Your task to perform on an android device: Open the phone app and click the voicemail tab. Image 0: 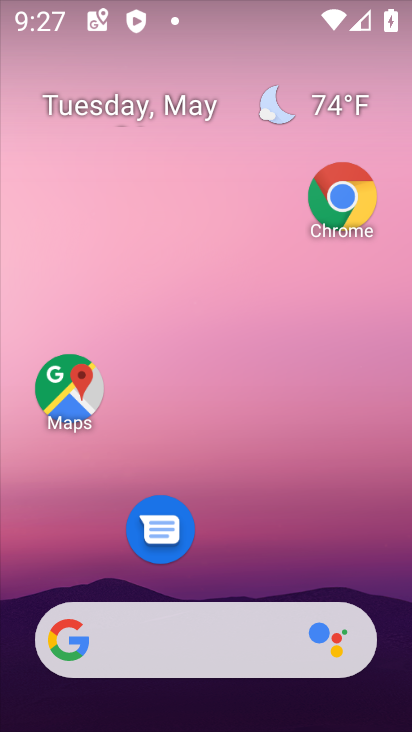
Step 0: drag from (297, 34) to (274, 6)
Your task to perform on an android device: Open the phone app and click the voicemail tab. Image 1: 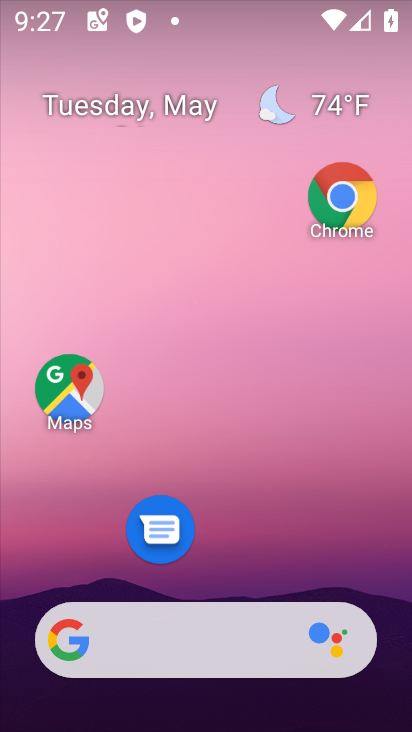
Step 1: drag from (240, 185) to (236, 144)
Your task to perform on an android device: Open the phone app and click the voicemail tab. Image 2: 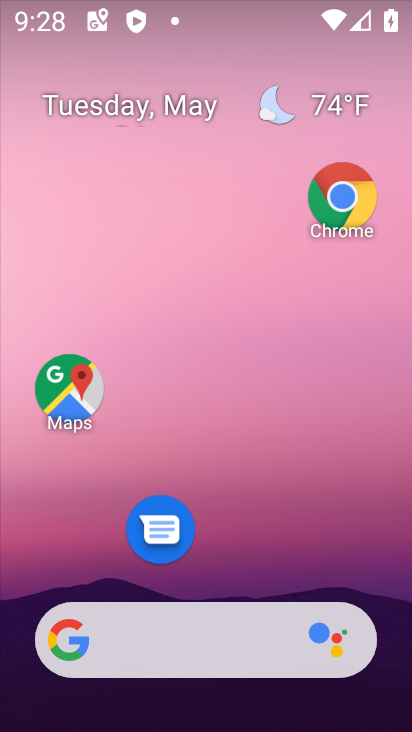
Step 2: drag from (216, 521) to (181, 1)
Your task to perform on an android device: Open the phone app and click the voicemail tab. Image 3: 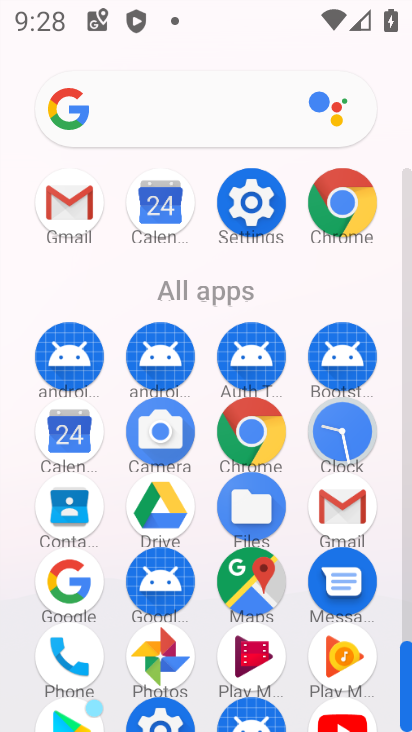
Step 3: click (60, 637)
Your task to perform on an android device: Open the phone app and click the voicemail tab. Image 4: 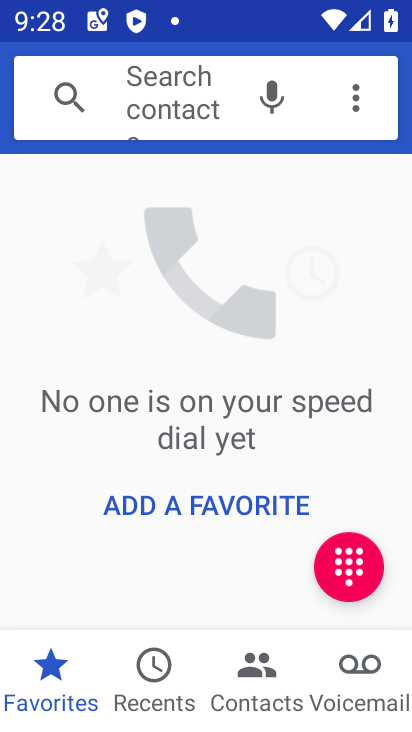
Step 4: click (359, 659)
Your task to perform on an android device: Open the phone app and click the voicemail tab. Image 5: 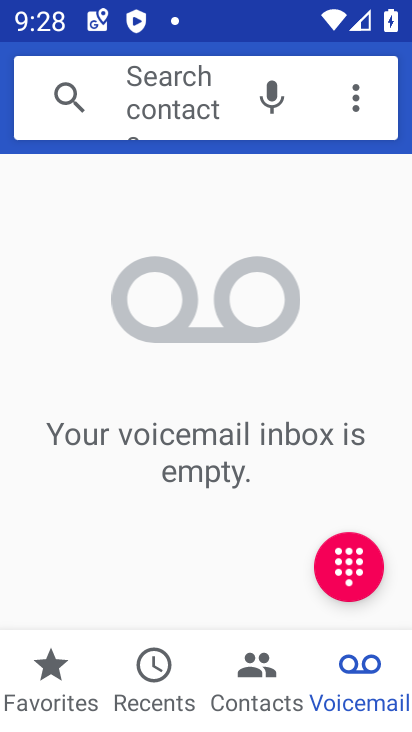
Step 5: task complete